Your task to perform on an android device: change notification settings in the gmail app Image 0: 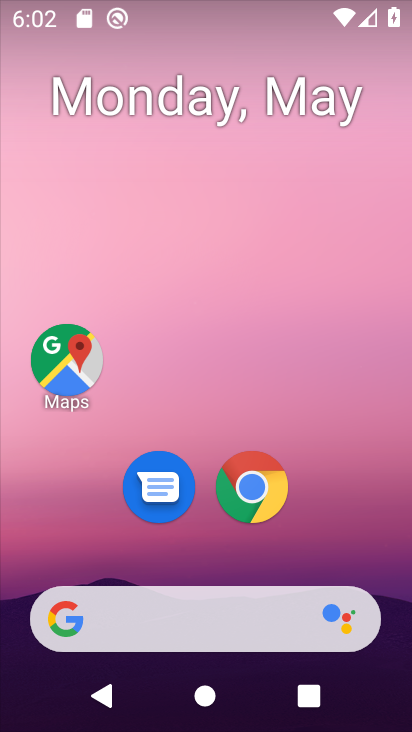
Step 0: drag from (208, 554) to (236, 195)
Your task to perform on an android device: change notification settings in the gmail app Image 1: 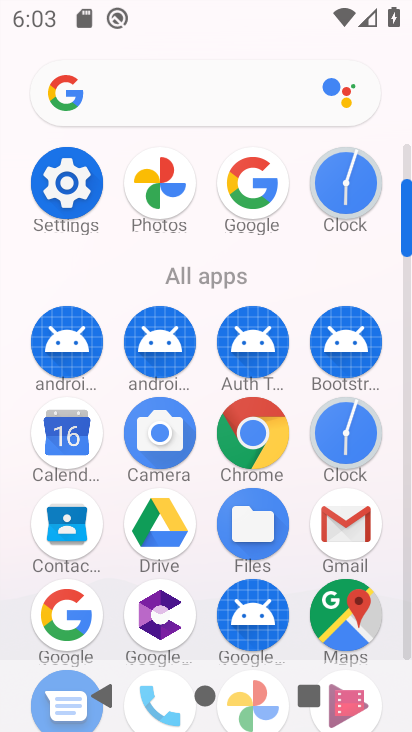
Step 1: click (337, 516)
Your task to perform on an android device: change notification settings in the gmail app Image 2: 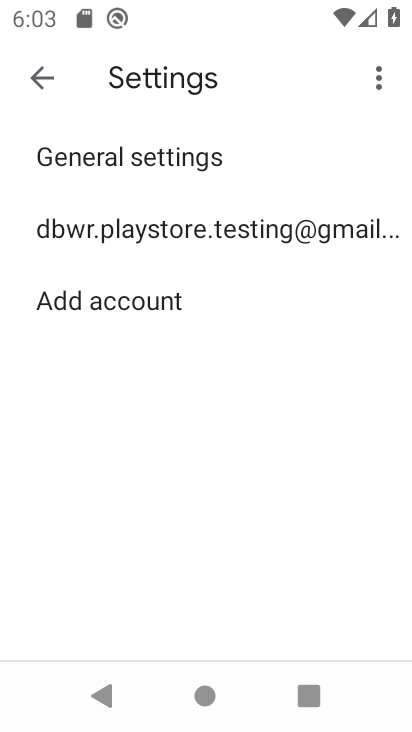
Step 2: press home button
Your task to perform on an android device: change notification settings in the gmail app Image 3: 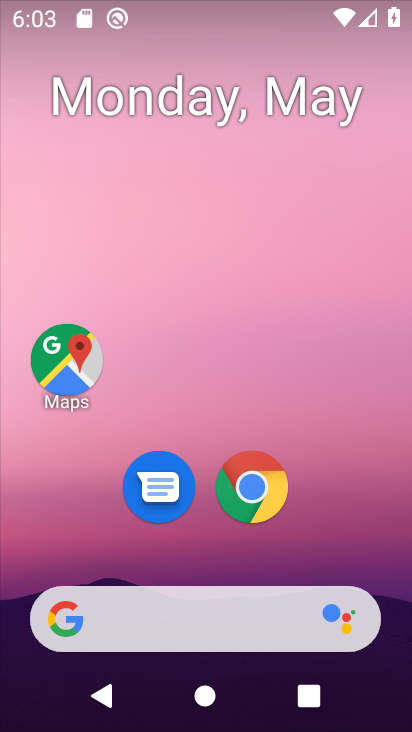
Step 3: drag from (217, 558) to (282, 105)
Your task to perform on an android device: change notification settings in the gmail app Image 4: 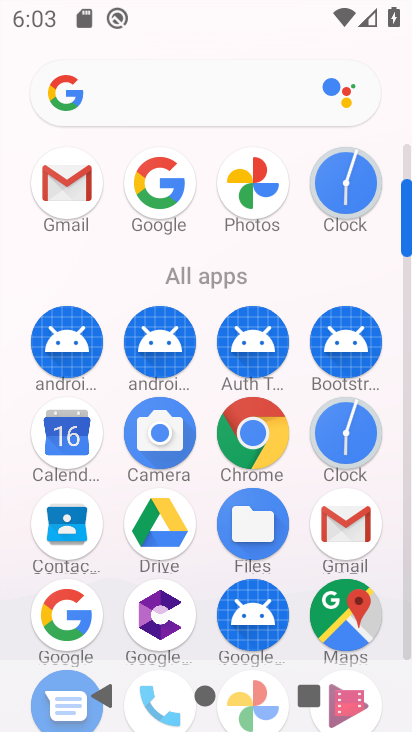
Step 4: click (69, 168)
Your task to perform on an android device: change notification settings in the gmail app Image 5: 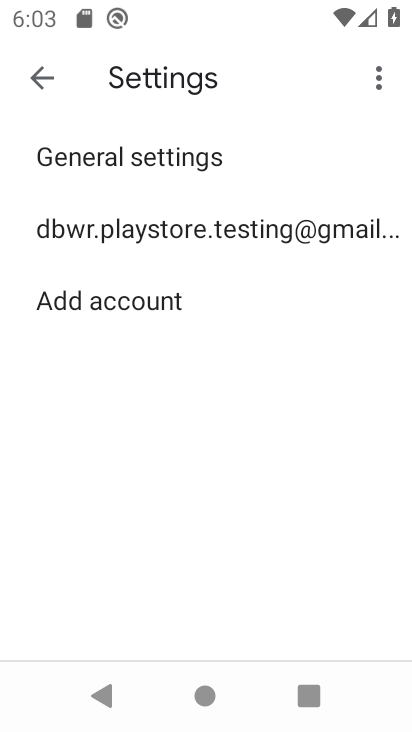
Step 5: click (131, 162)
Your task to perform on an android device: change notification settings in the gmail app Image 6: 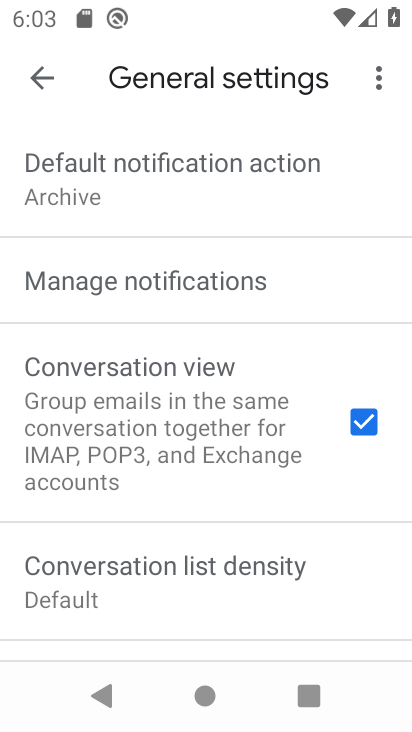
Step 6: click (132, 285)
Your task to perform on an android device: change notification settings in the gmail app Image 7: 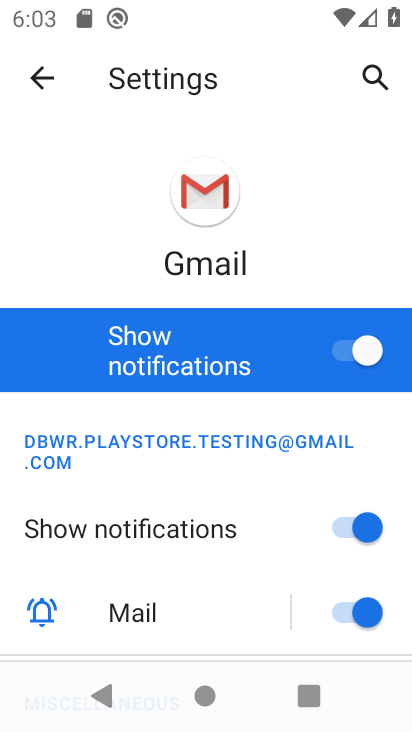
Step 7: click (348, 353)
Your task to perform on an android device: change notification settings in the gmail app Image 8: 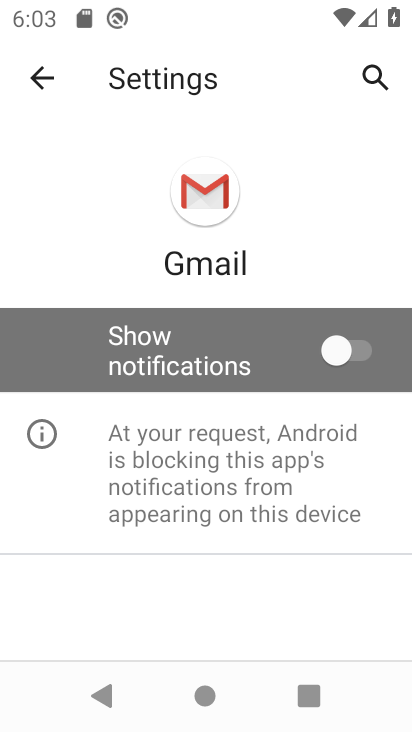
Step 8: task complete